Your task to perform on an android device: turn on notifications settings in the gmail app Image 0: 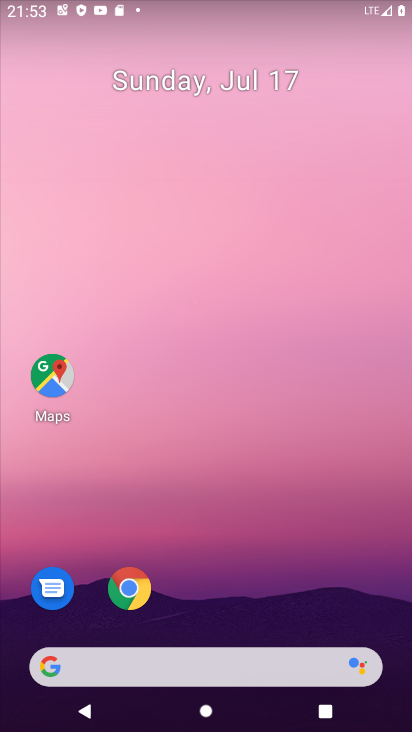
Step 0: press home button
Your task to perform on an android device: turn on notifications settings in the gmail app Image 1: 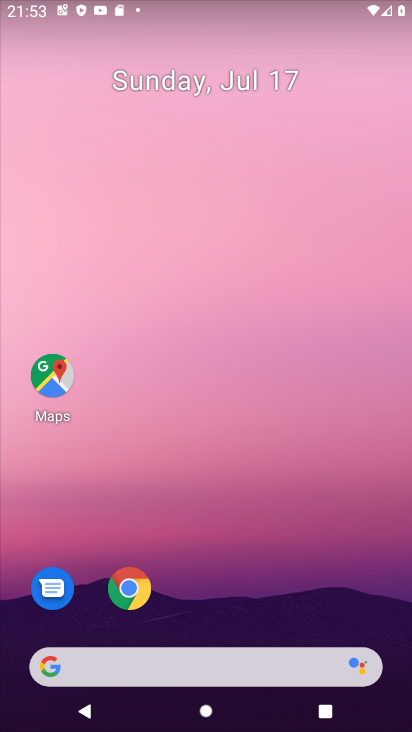
Step 1: drag from (254, 621) to (272, 81)
Your task to perform on an android device: turn on notifications settings in the gmail app Image 2: 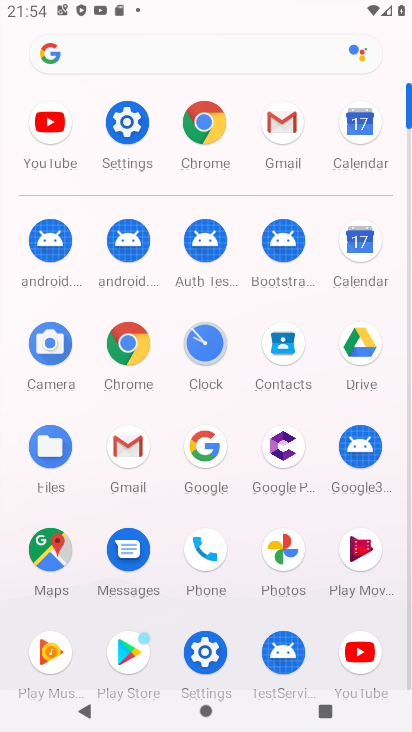
Step 2: click (131, 470)
Your task to perform on an android device: turn on notifications settings in the gmail app Image 3: 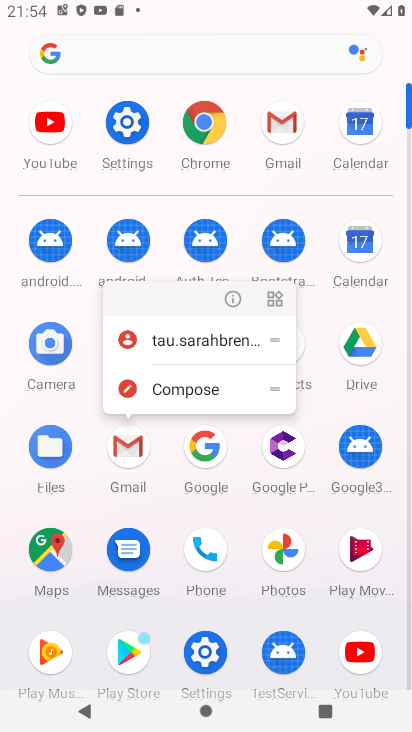
Step 3: click (236, 288)
Your task to perform on an android device: turn on notifications settings in the gmail app Image 4: 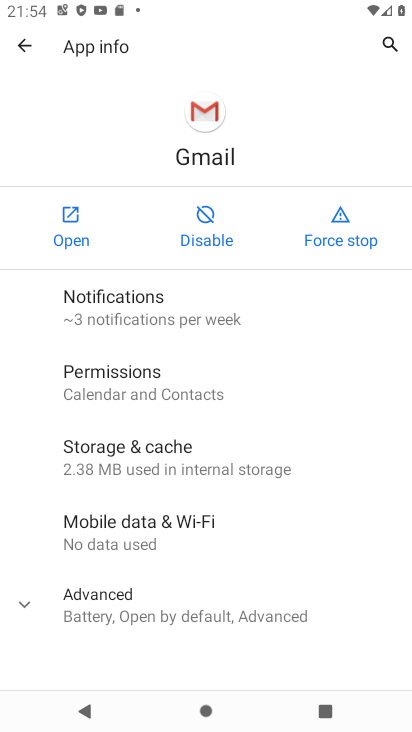
Step 4: click (189, 280)
Your task to perform on an android device: turn on notifications settings in the gmail app Image 5: 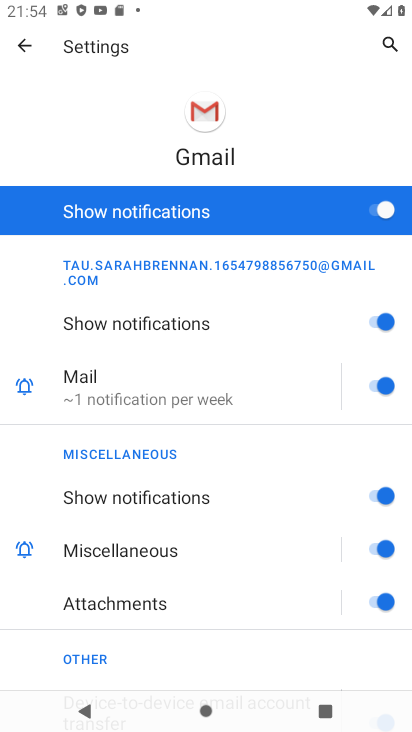
Step 5: task complete